Your task to perform on an android device: Open notification settings Image 0: 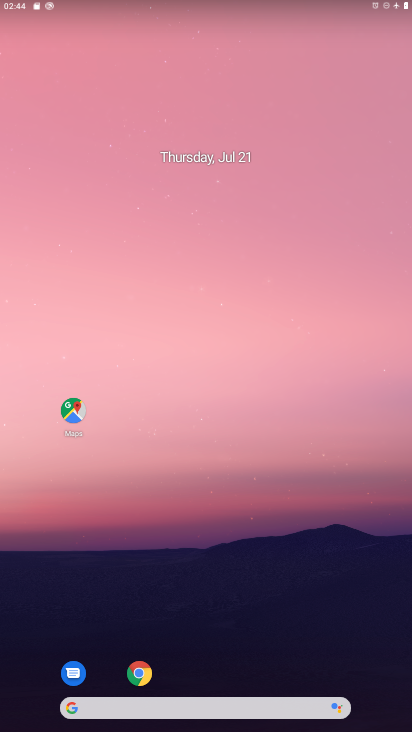
Step 0: drag from (211, 644) to (200, 189)
Your task to perform on an android device: Open notification settings Image 1: 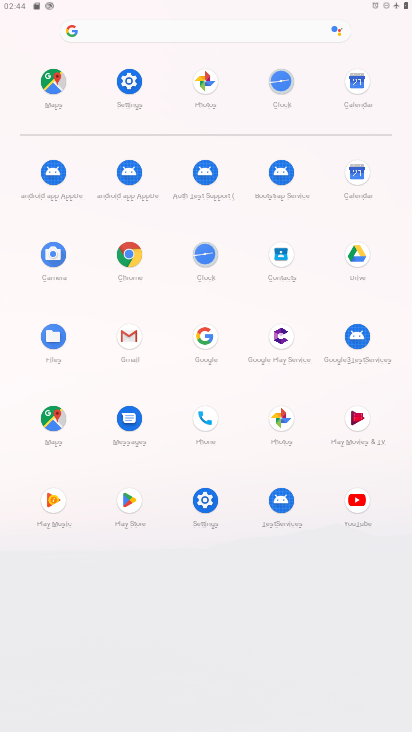
Step 1: click (132, 74)
Your task to perform on an android device: Open notification settings Image 2: 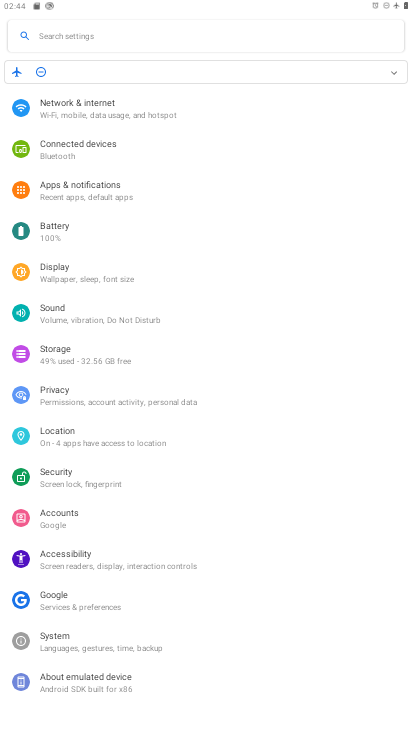
Step 2: click (96, 172)
Your task to perform on an android device: Open notification settings Image 3: 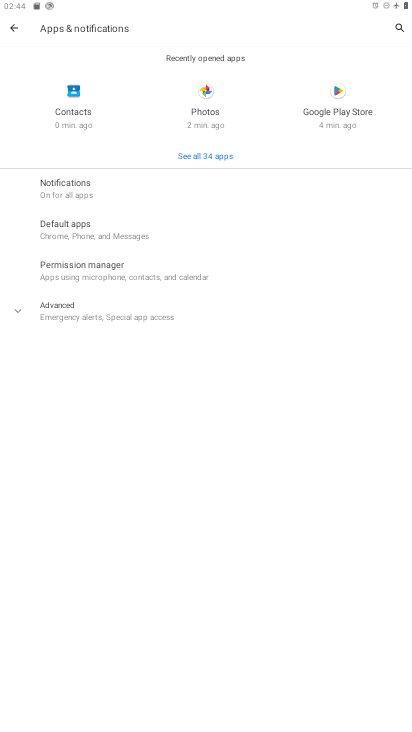
Step 3: click (103, 188)
Your task to perform on an android device: Open notification settings Image 4: 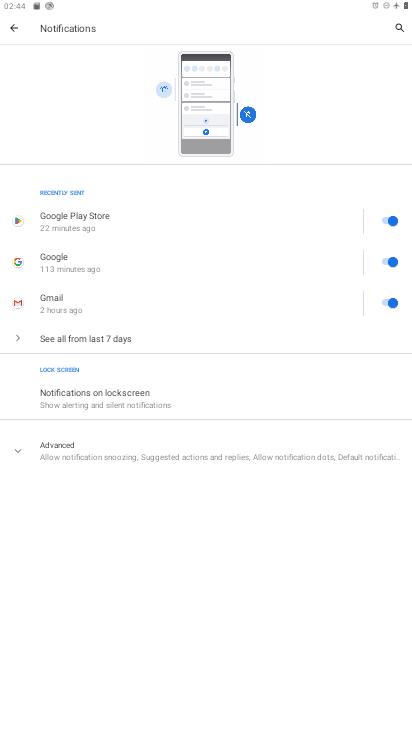
Step 4: click (138, 341)
Your task to perform on an android device: Open notification settings Image 5: 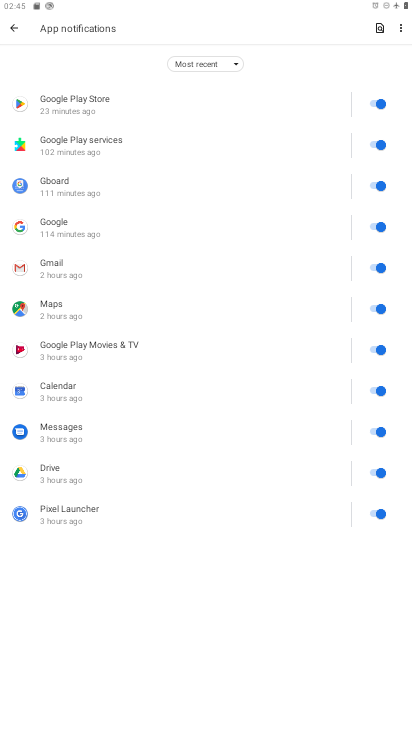
Step 5: task complete